Your task to perform on an android device: toggle improve location accuracy Image 0: 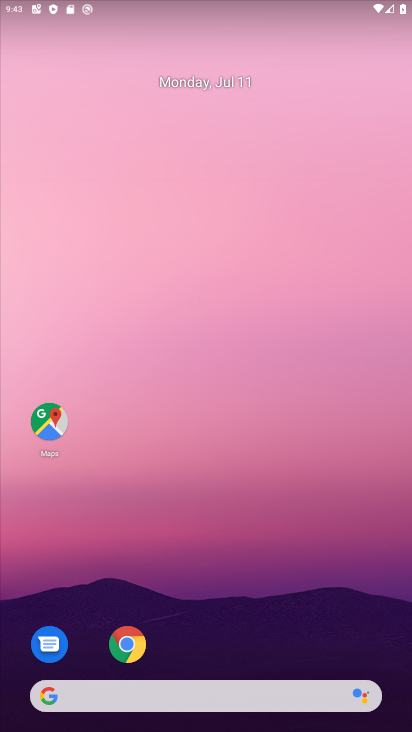
Step 0: drag from (215, 649) to (212, 213)
Your task to perform on an android device: toggle improve location accuracy Image 1: 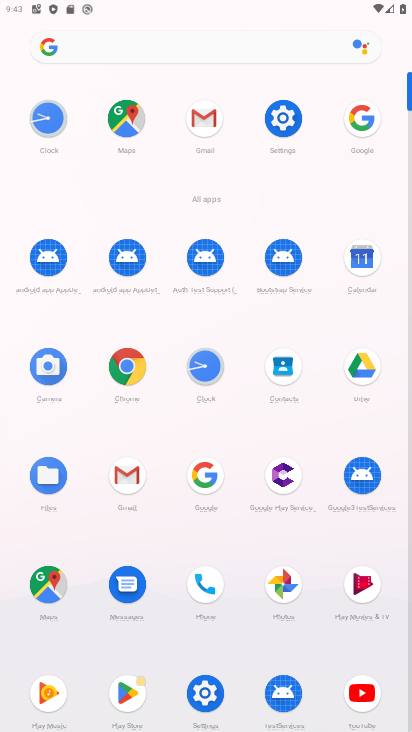
Step 1: click (279, 119)
Your task to perform on an android device: toggle improve location accuracy Image 2: 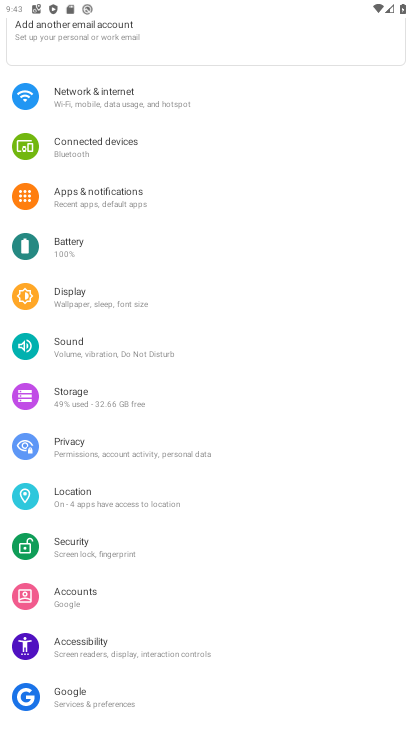
Step 2: click (84, 501)
Your task to perform on an android device: toggle improve location accuracy Image 3: 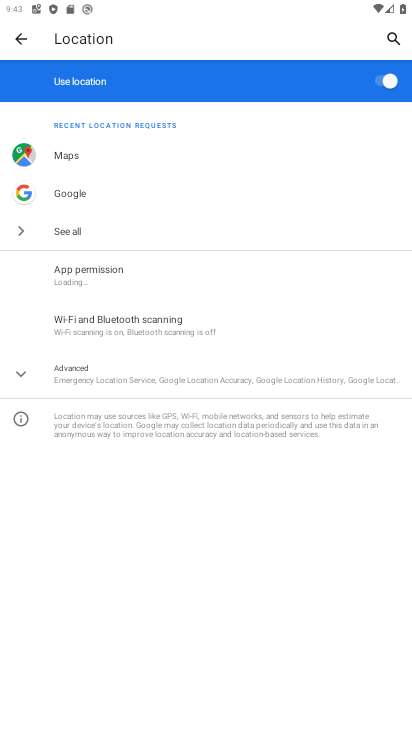
Step 3: click (95, 367)
Your task to perform on an android device: toggle improve location accuracy Image 4: 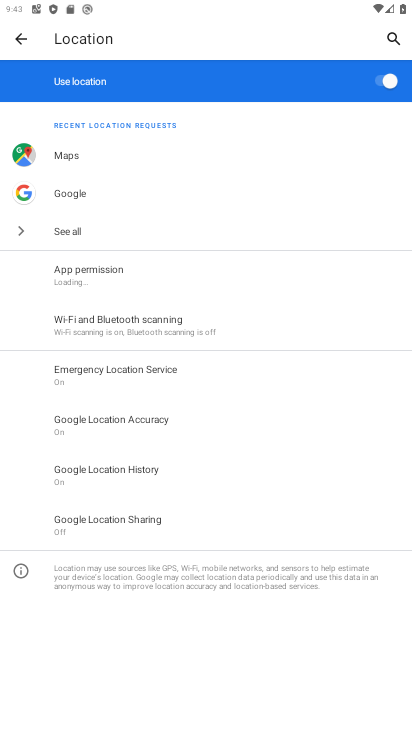
Step 4: click (169, 417)
Your task to perform on an android device: toggle improve location accuracy Image 5: 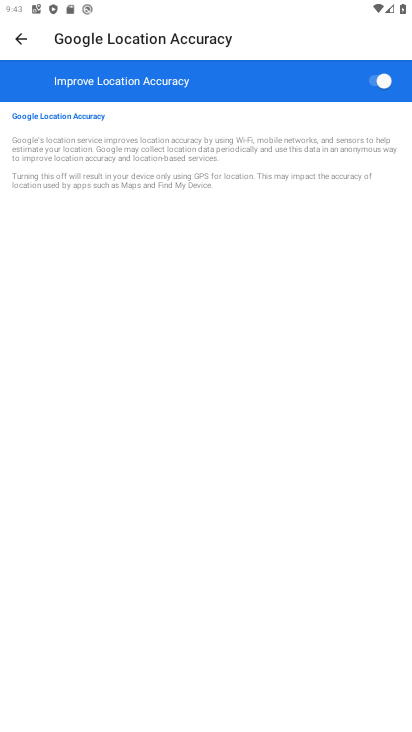
Step 5: click (378, 89)
Your task to perform on an android device: toggle improve location accuracy Image 6: 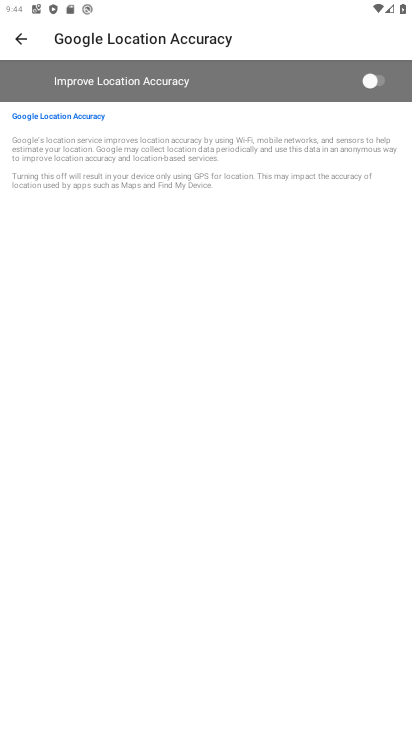
Step 6: task complete